Your task to perform on an android device: What's the weather going to be this weekend? Image 0: 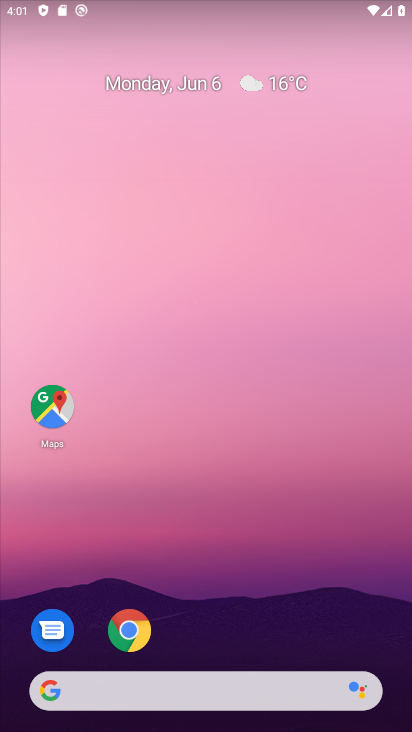
Step 0: click (271, 91)
Your task to perform on an android device: What's the weather going to be this weekend? Image 1: 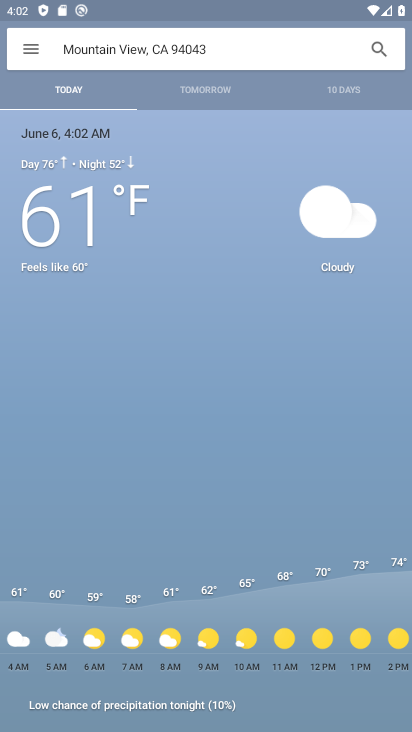
Step 1: click (344, 97)
Your task to perform on an android device: What's the weather going to be this weekend? Image 2: 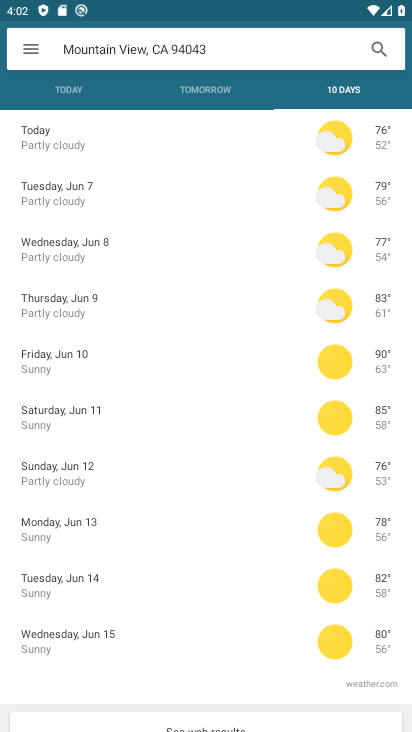
Step 2: task complete